Your task to perform on an android device: turn on translation in the chrome app Image 0: 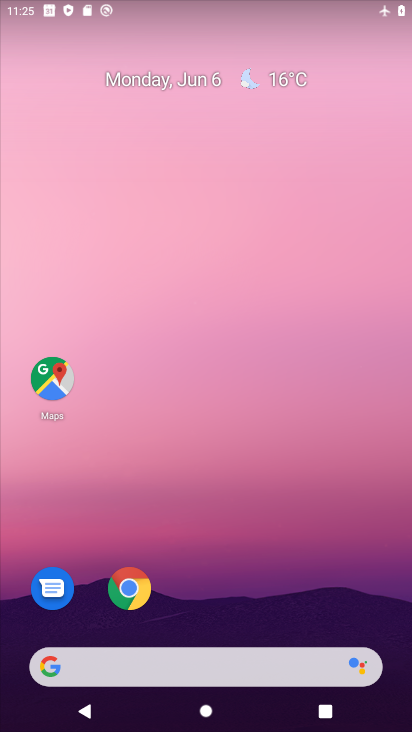
Step 0: click (130, 586)
Your task to perform on an android device: turn on translation in the chrome app Image 1: 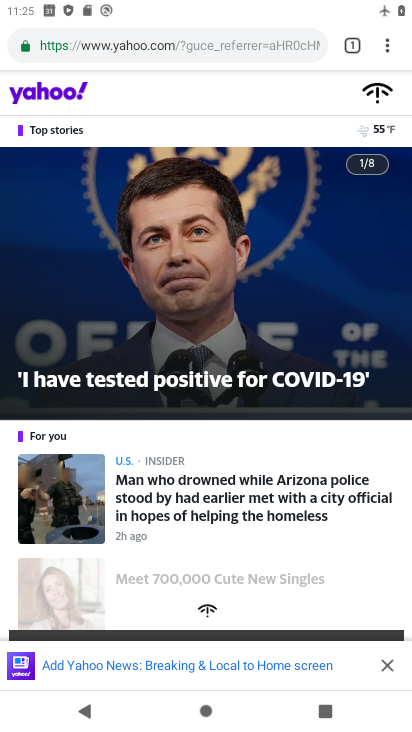
Step 1: click (385, 46)
Your task to perform on an android device: turn on translation in the chrome app Image 2: 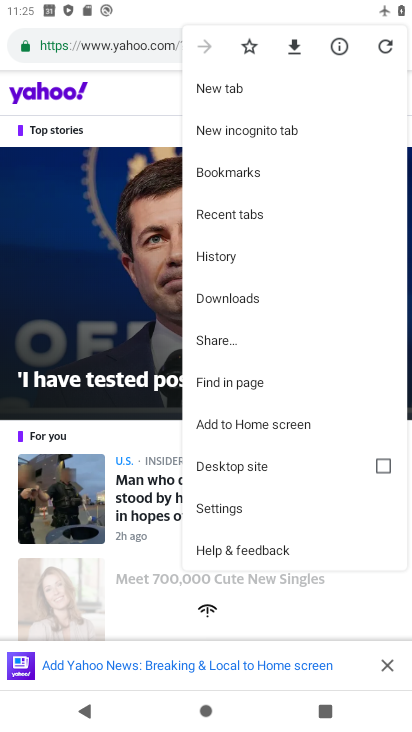
Step 2: click (228, 509)
Your task to perform on an android device: turn on translation in the chrome app Image 3: 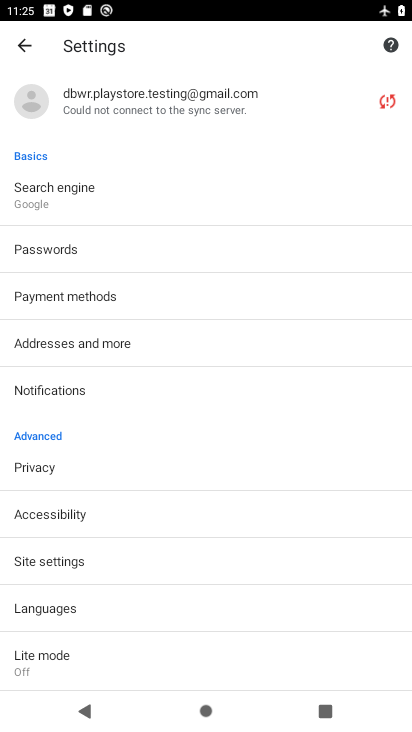
Step 3: click (68, 603)
Your task to perform on an android device: turn on translation in the chrome app Image 4: 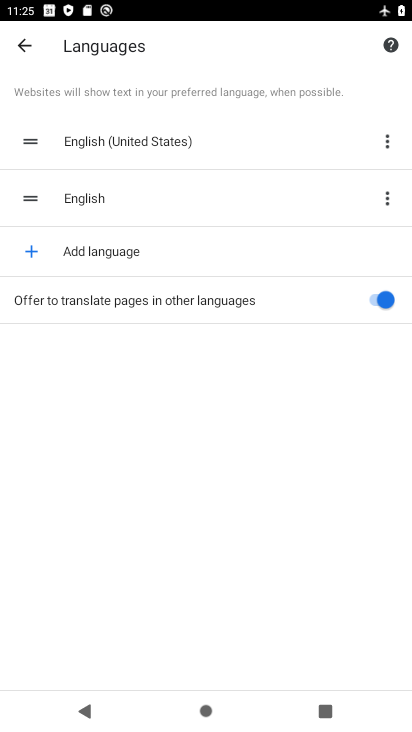
Step 4: task complete